Your task to perform on an android device: Go to Wikipedia Image 0: 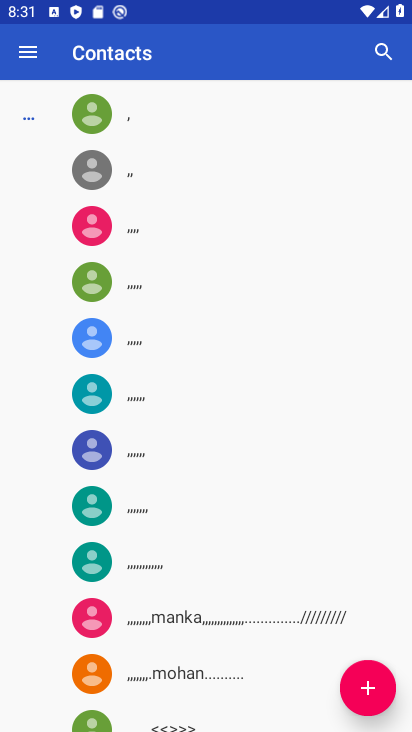
Step 0: press home button
Your task to perform on an android device: Go to Wikipedia Image 1: 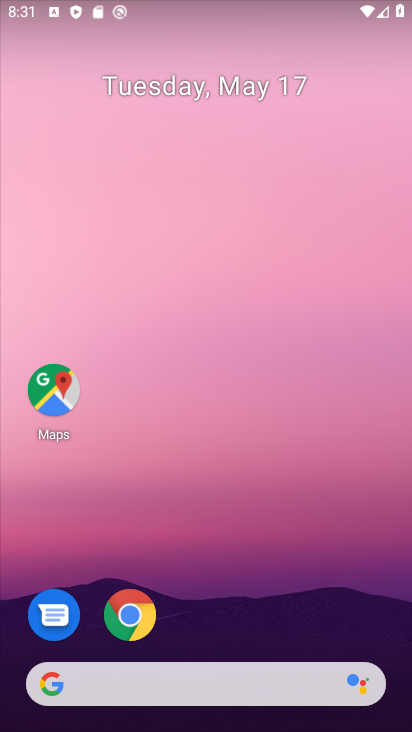
Step 1: click (130, 618)
Your task to perform on an android device: Go to Wikipedia Image 2: 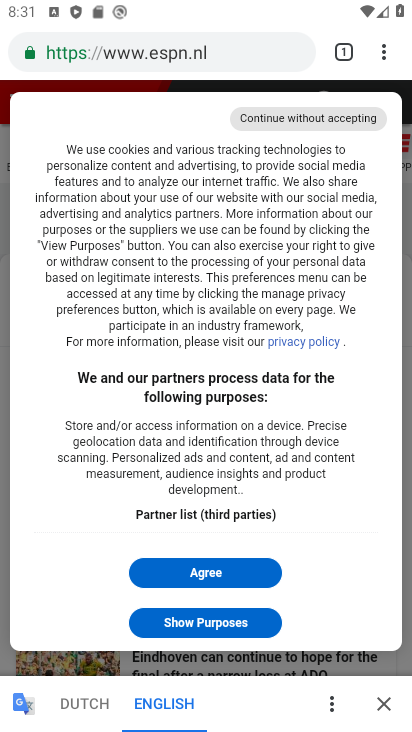
Step 2: click (156, 50)
Your task to perform on an android device: Go to Wikipedia Image 3: 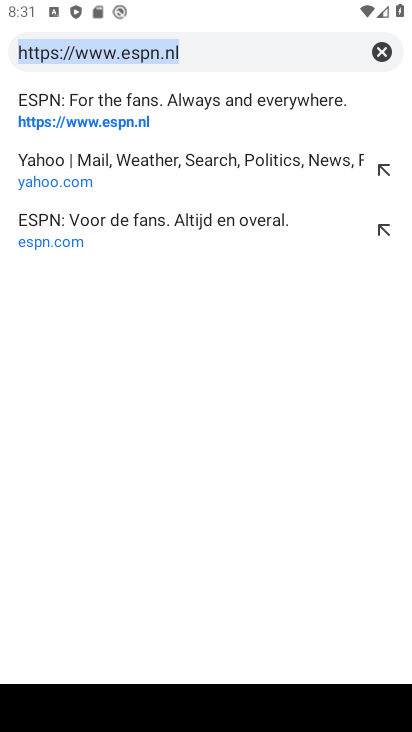
Step 3: click (383, 45)
Your task to perform on an android device: Go to Wikipedia Image 4: 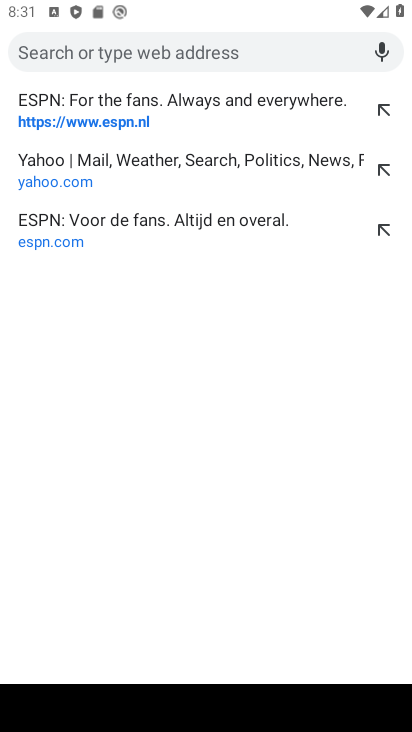
Step 4: type "wikipedia"
Your task to perform on an android device: Go to Wikipedia Image 5: 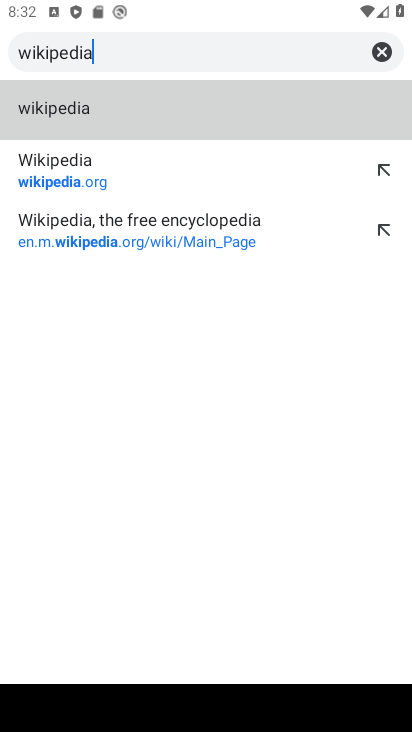
Step 5: click (40, 151)
Your task to perform on an android device: Go to Wikipedia Image 6: 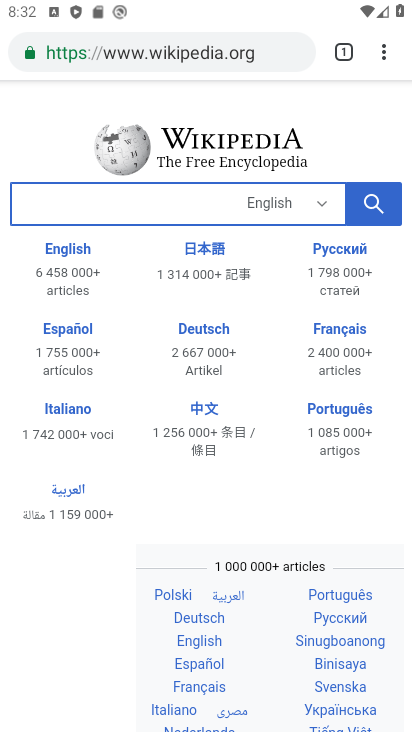
Step 6: task complete